Your task to perform on an android device: delete location history Image 0: 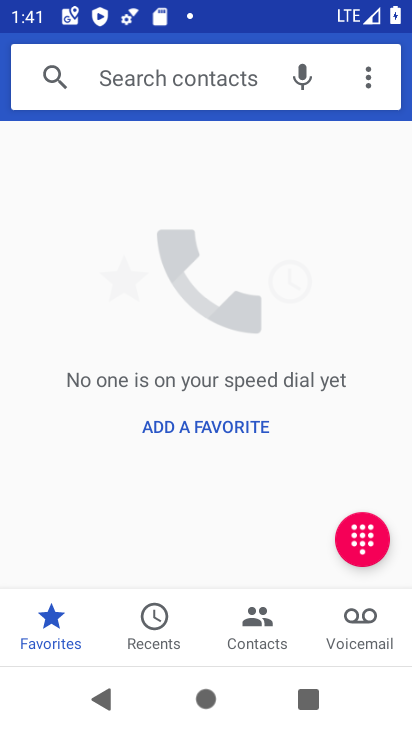
Step 0: press home button
Your task to perform on an android device: delete location history Image 1: 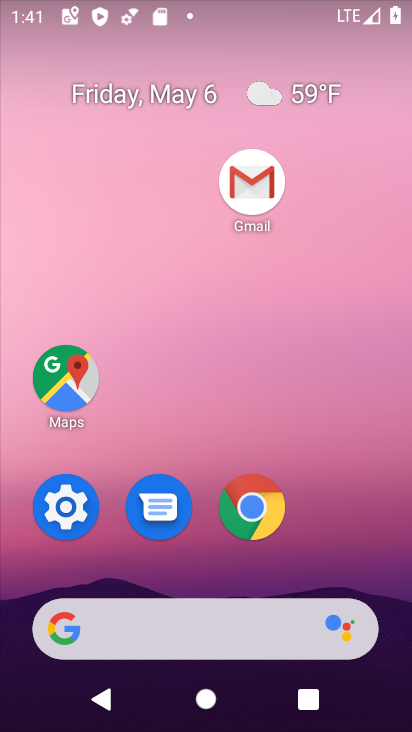
Step 1: click (64, 390)
Your task to perform on an android device: delete location history Image 2: 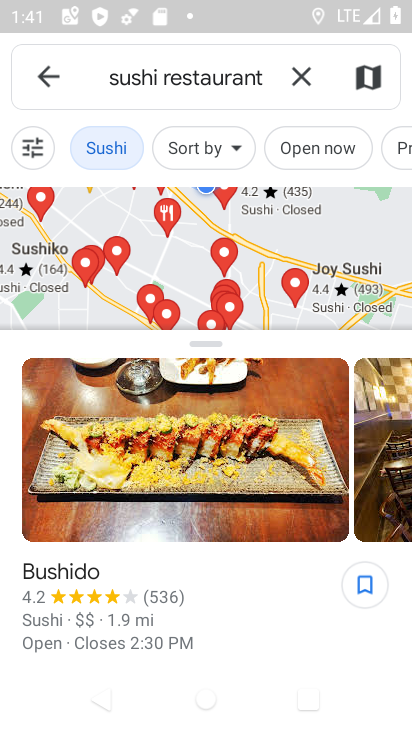
Step 2: click (46, 67)
Your task to perform on an android device: delete location history Image 3: 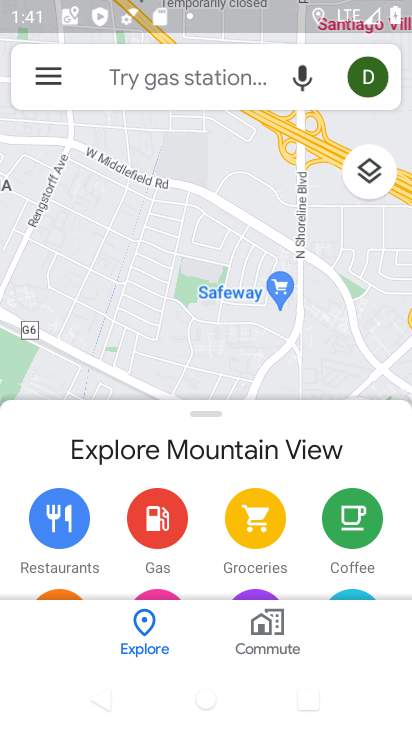
Step 3: click (47, 80)
Your task to perform on an android device: delete location history Image 4: 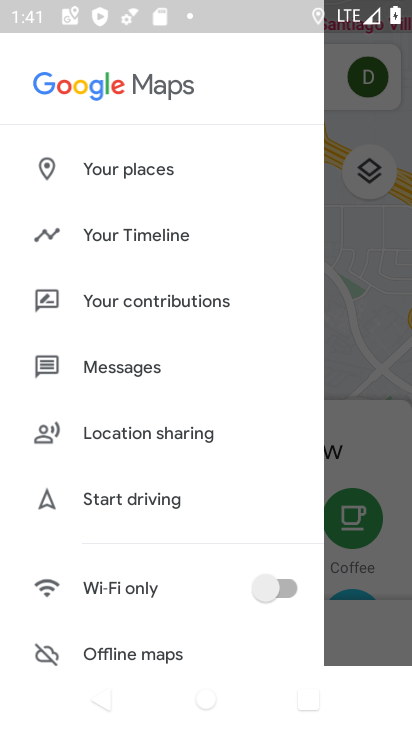
Step 4: click (122, 235)
Your task to perform on an android device: delete location history Image 5: 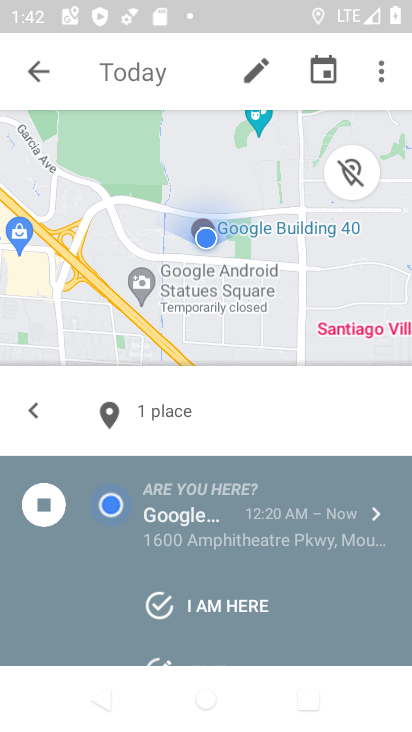
Step 5: click (376, 71)
Your task to perform on an android device: delete location history Image 6: 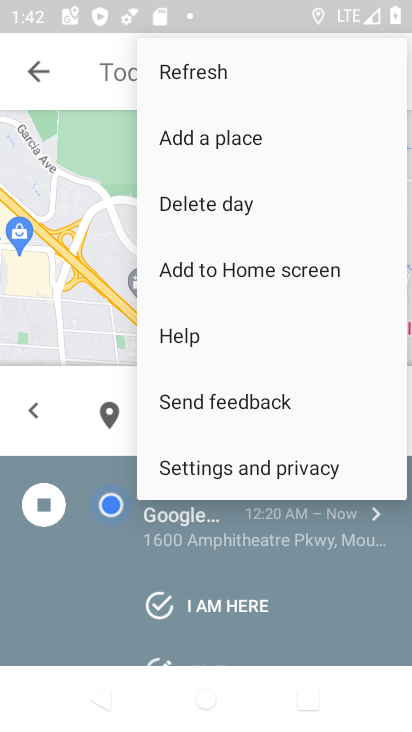
Step 6: click (201, 471)
Your task to perform on an android device: delete location history Image 7: 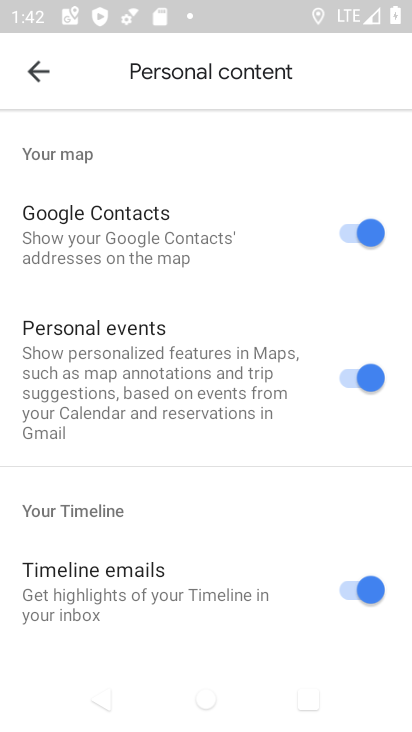
Step 7: drag from (208, 518) to (204, 280)
Your task to perform on an android device: delete location history Image 8: 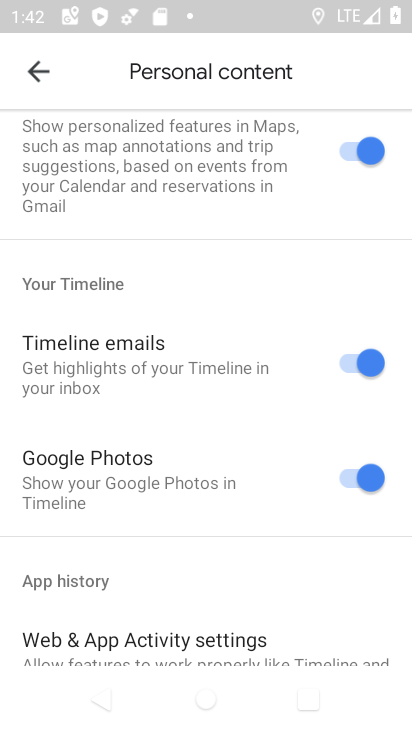
Step 8: drag from (204, 571) to (185, 178)
Your task to perform on an android device: delete location history Image 9: 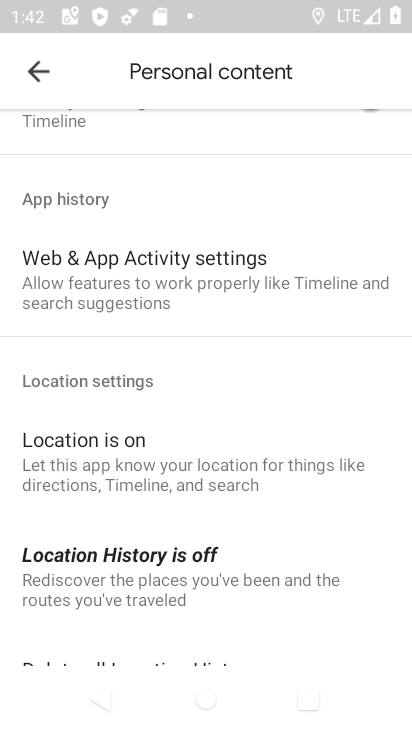
Step 9: drag from (238, 534) to (228, 223)
Your task to perform on an android device: delete location history Image 10: 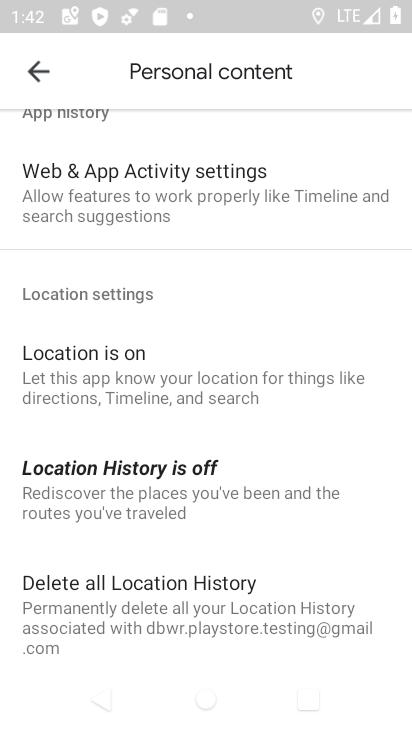
Step 10: drag from (275, 541) to (246, 253)
Your task to perform on an android device: delete location history Image 11: 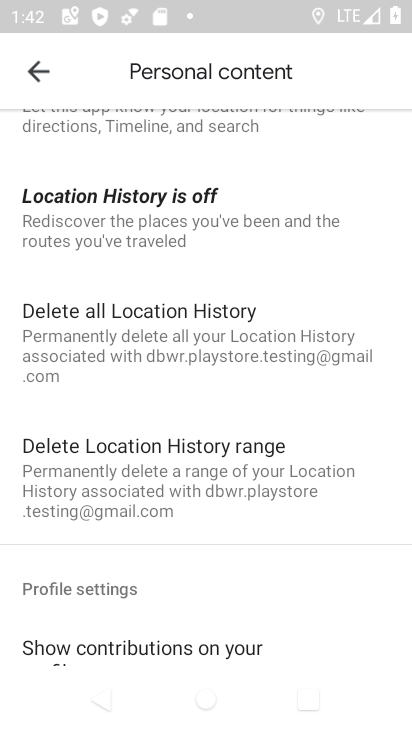
Step 11: click (140, 305)
Your task to perform on an android device: delete location history Image 12: 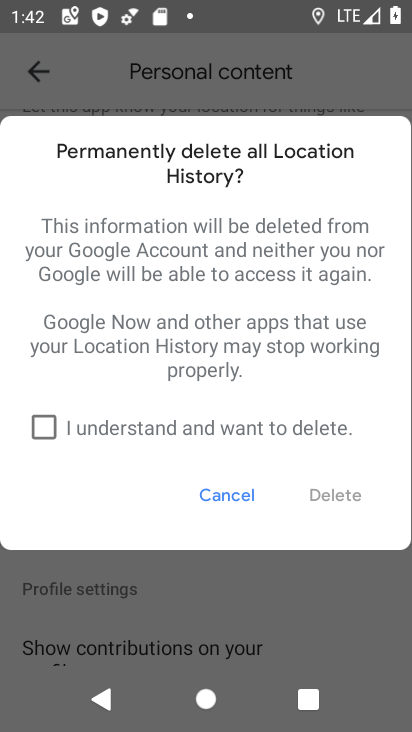
Step 12: click (47, 430)
Your task to perform on an android device: delete location history Image 13: 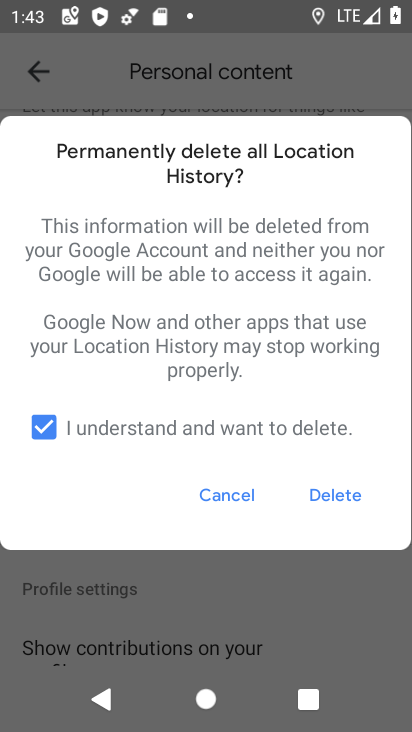
Step 13: click (335, 495)
Your task to perform on an android device: delete location history Image 14: 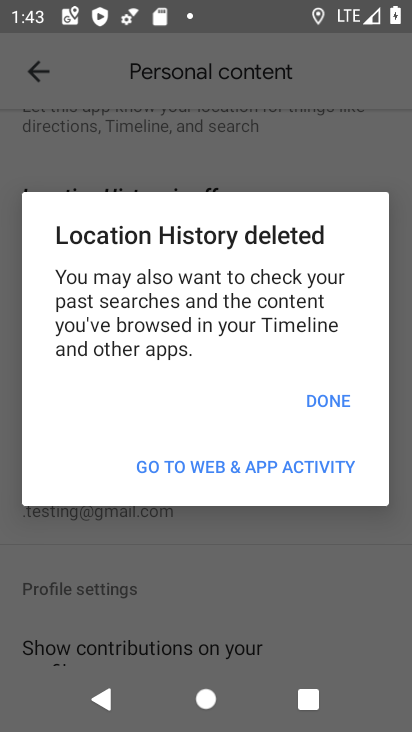
Step 14: click (334, 397)
Your task to perform on an android device: delete location history Image 15: 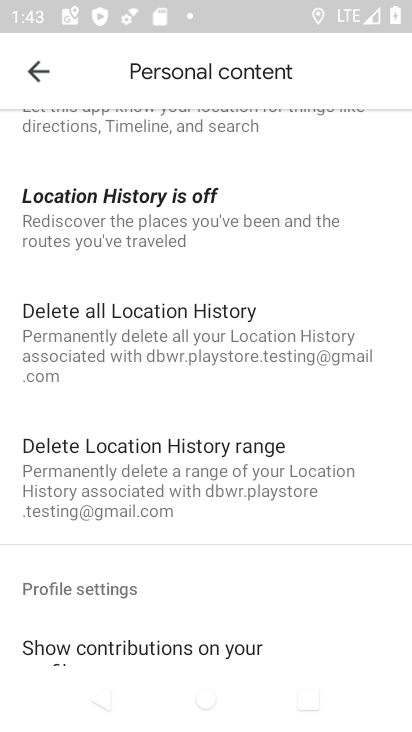
Step 15: task complete